Your task to perform on an android device: toggle notifications settings in the gmail app Image 0: 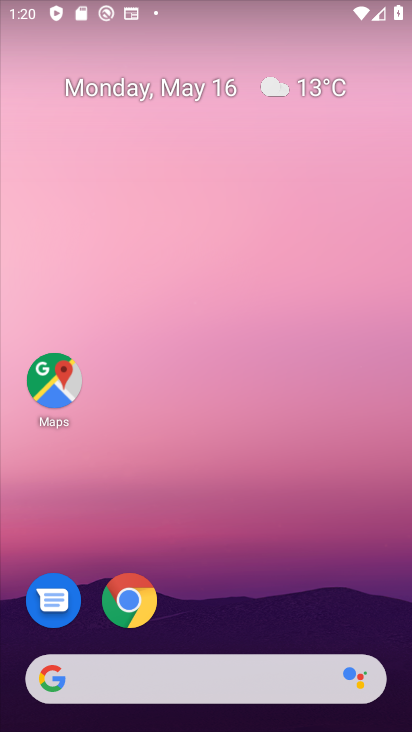
Step 0: drag from (196, 598) to (24, 83)
Your task to perform on an android device: toggle notifications settings in the gmail app Image 1: 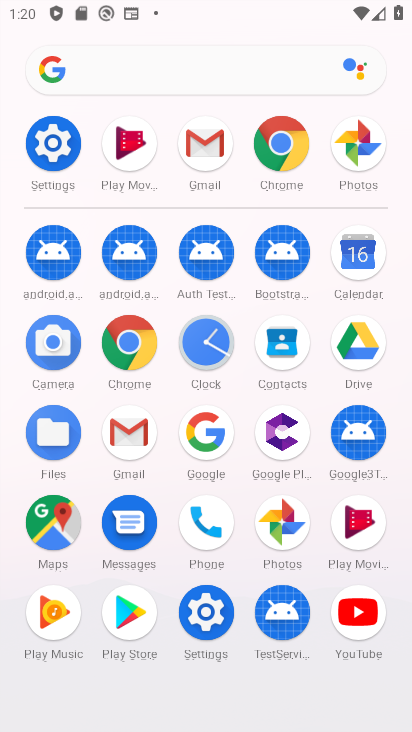
Step 1: click (203, 147)
Your task to perform on an android device: toggle notifications settings in the gmail app Image 2: 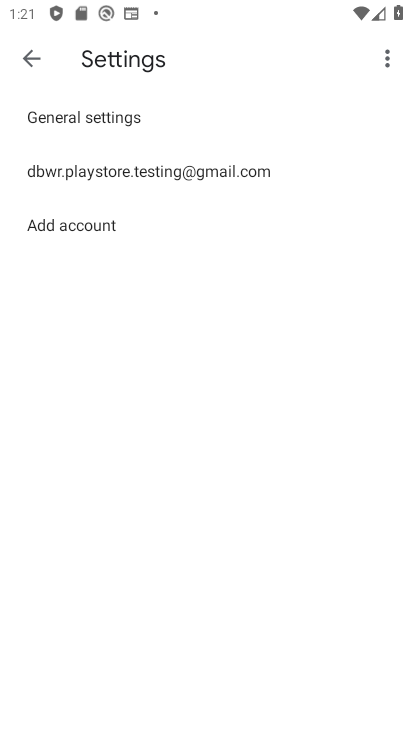
Step 2: click (192, 172)
Your task to perform on an android device: toggle notifications settings in the gmail app Image 3: 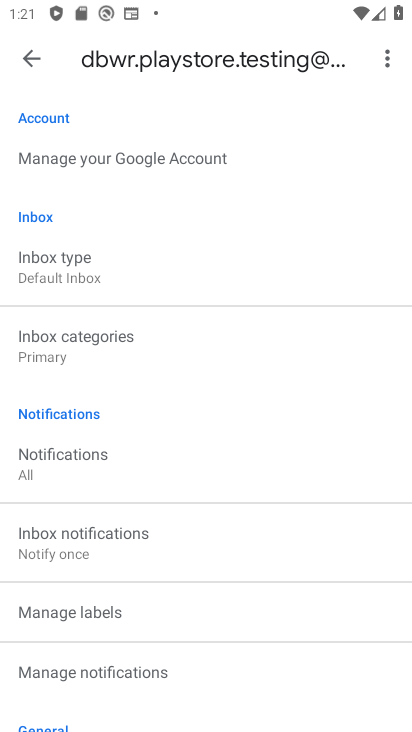
Step 3: drag from (69, 701) to (43, 469)
Your task to perform on an android device: toggle notifications settings in the gmail app Image 4: 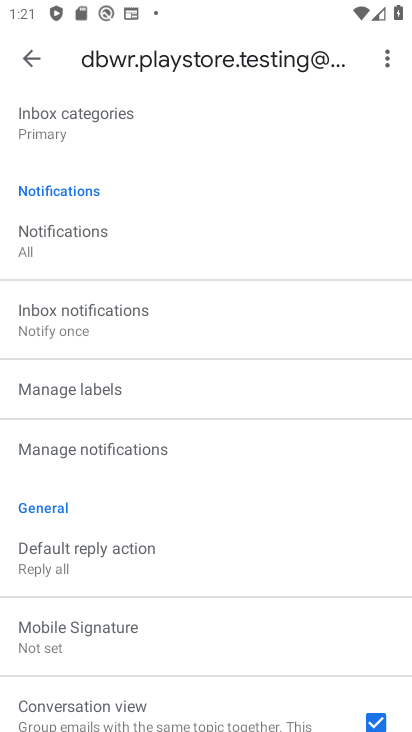
Step 4: click (83, 448)
Your task to perform on an android device: toggle notifications settings in the gmail app Image 5: 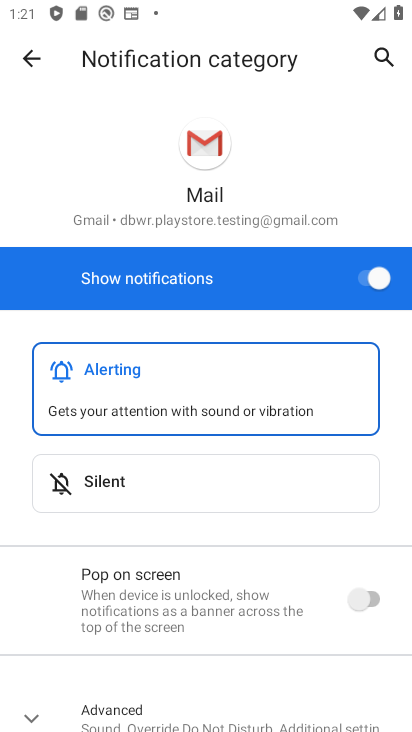
Step 5: click (375, 285)
Your task to perform on an android device: toggle notifications settings in the gmail app Image 6: 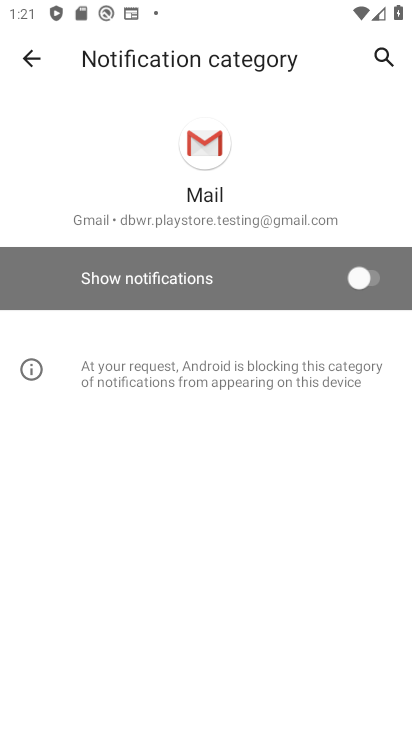
Step 6: task complete